Your task to perform on an android device: toggle data saver in the chrome app Image 0: 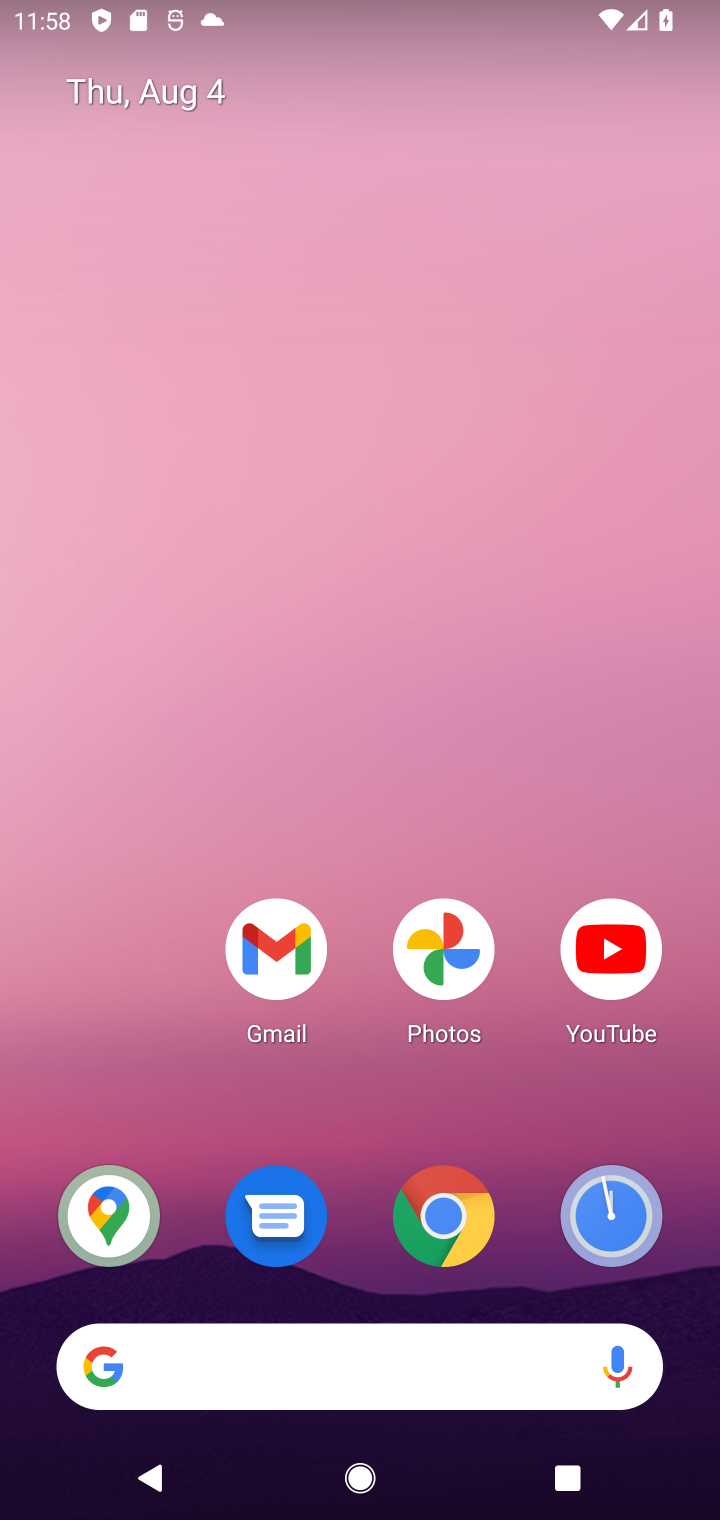
Step 0: drag from (305, 1346) to (427, 236)
Your task to perform on an android device: toggle data saver in the chrome app Image 1: 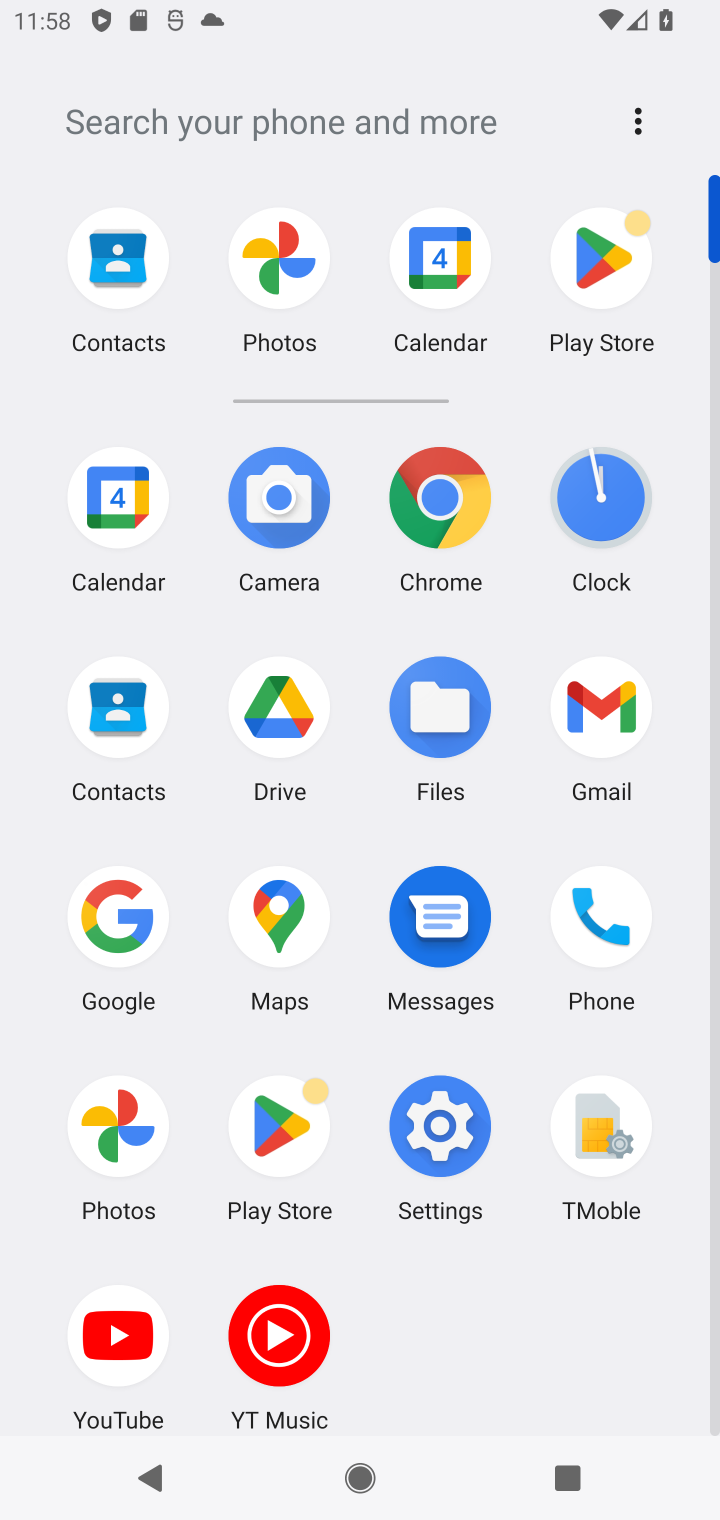
Step 1: click (435, 500)
Your task to perform on an android device: toggle data saver in the chrome app Image 2: 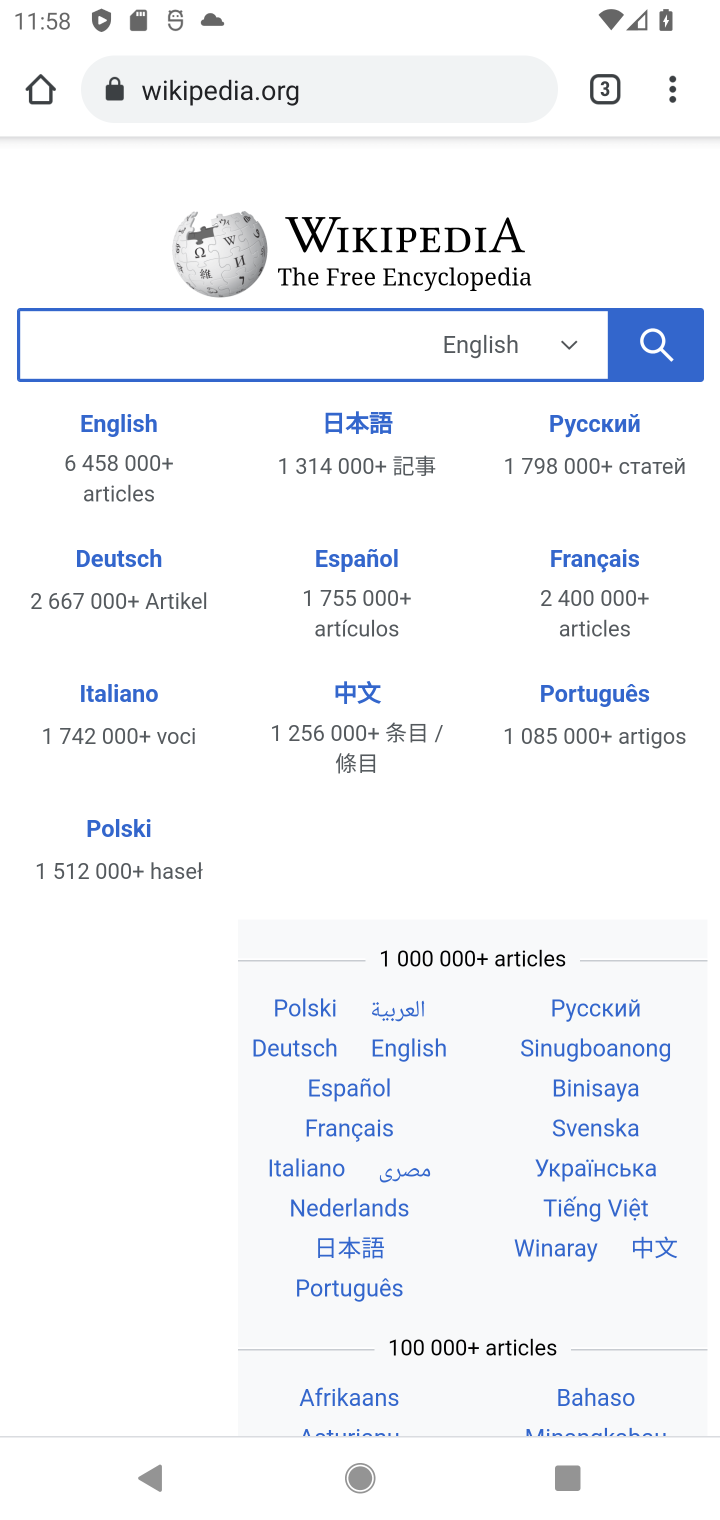
Step 2: click (680, 94)
Your task to perform on an android device: toggle data saver in the chrome app Image 3: 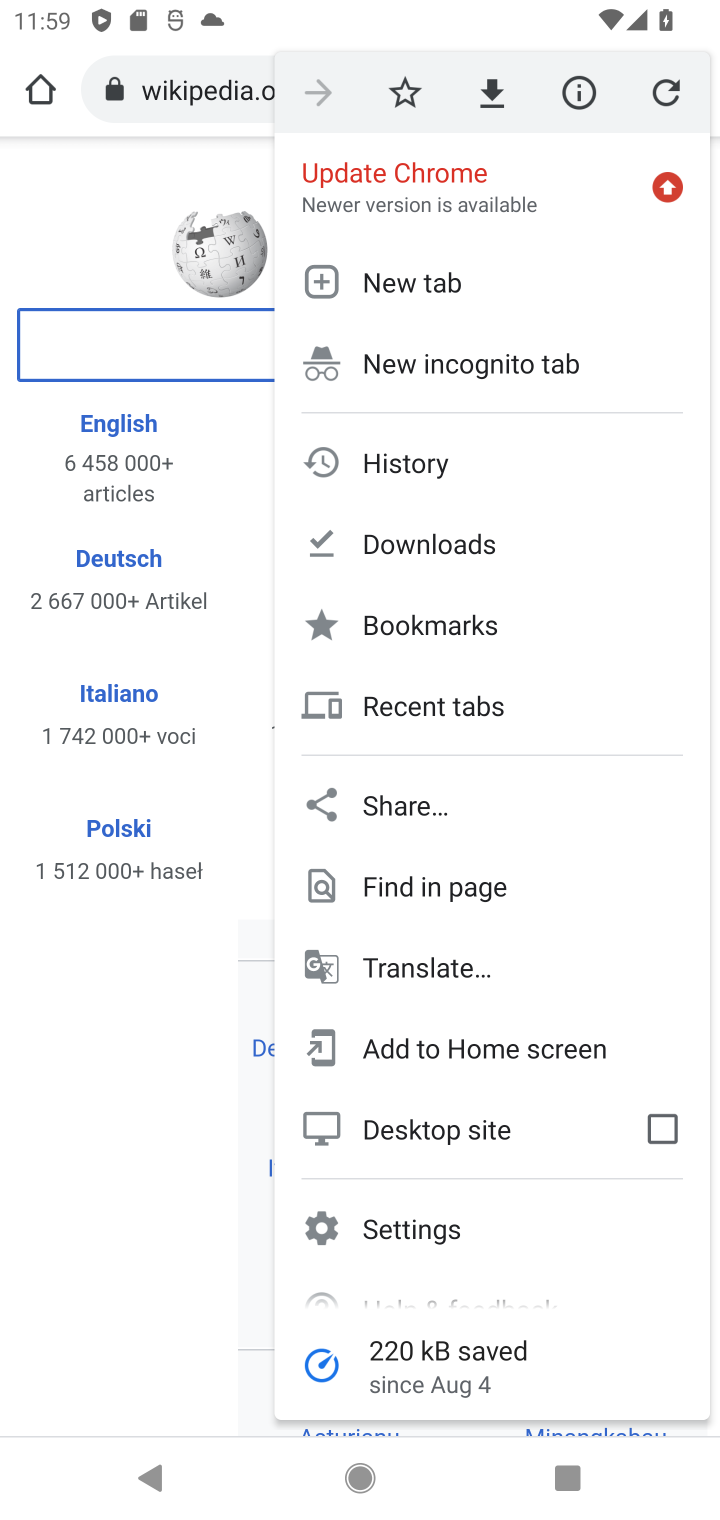
Step 3: drag from (458, 1235) to (473, 984)
Your task to perform on an android device: toggle data saver in the chrome app Image 4: 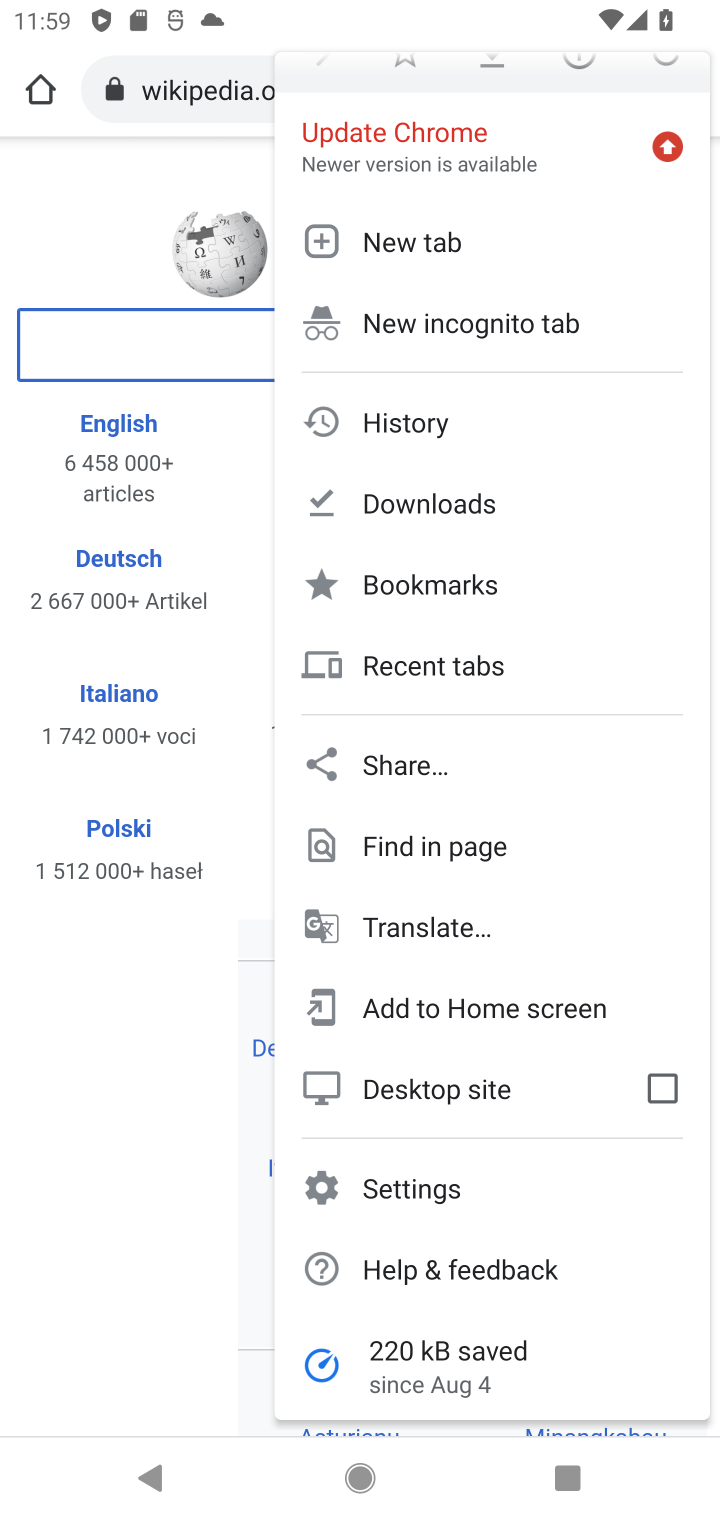
Step 4: click (417, 1184)
Your task to perform on an android device: toggle data saver in the chrome app Image 5: 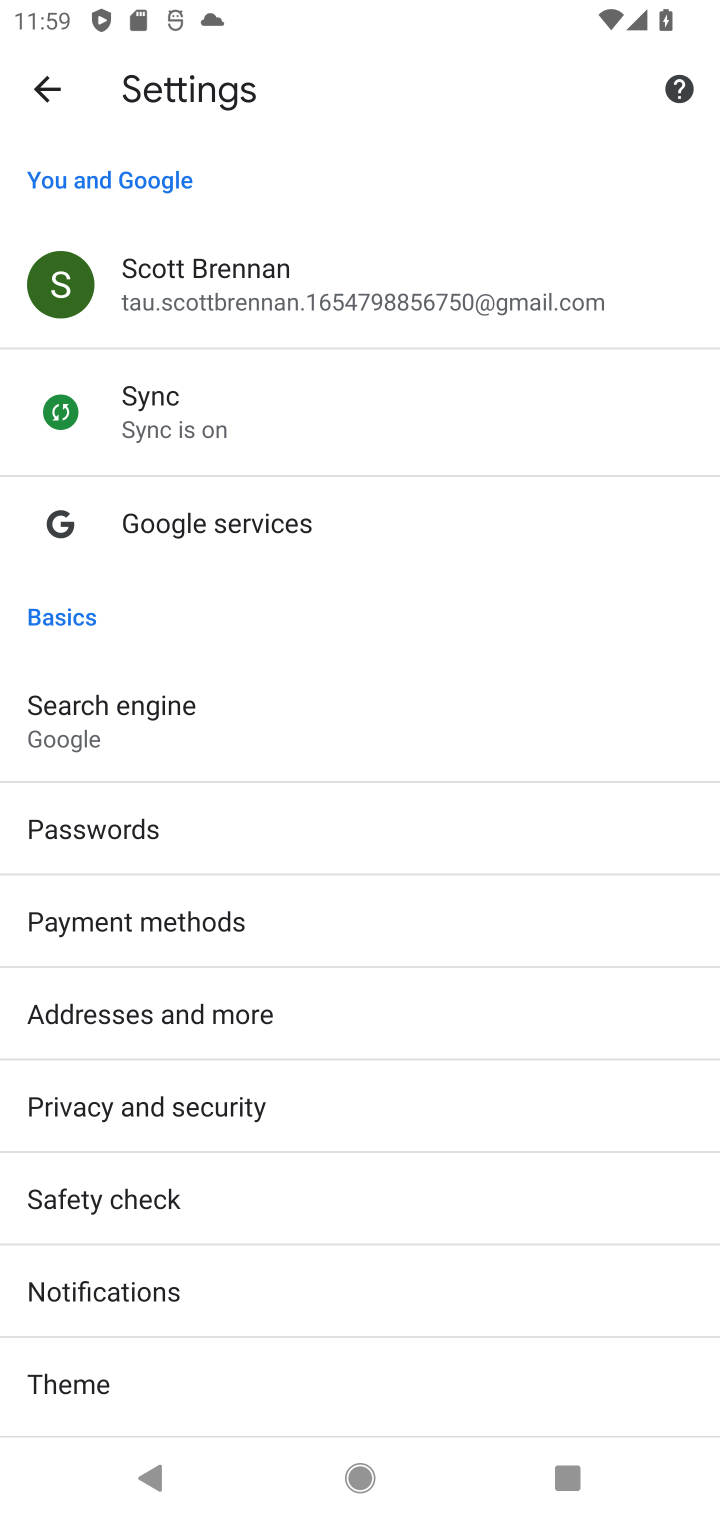
Step 5: drag from (187, 1277) to (266, 875)
Your task to perform on an android device: toggle data saver in the chrome app Image 6: 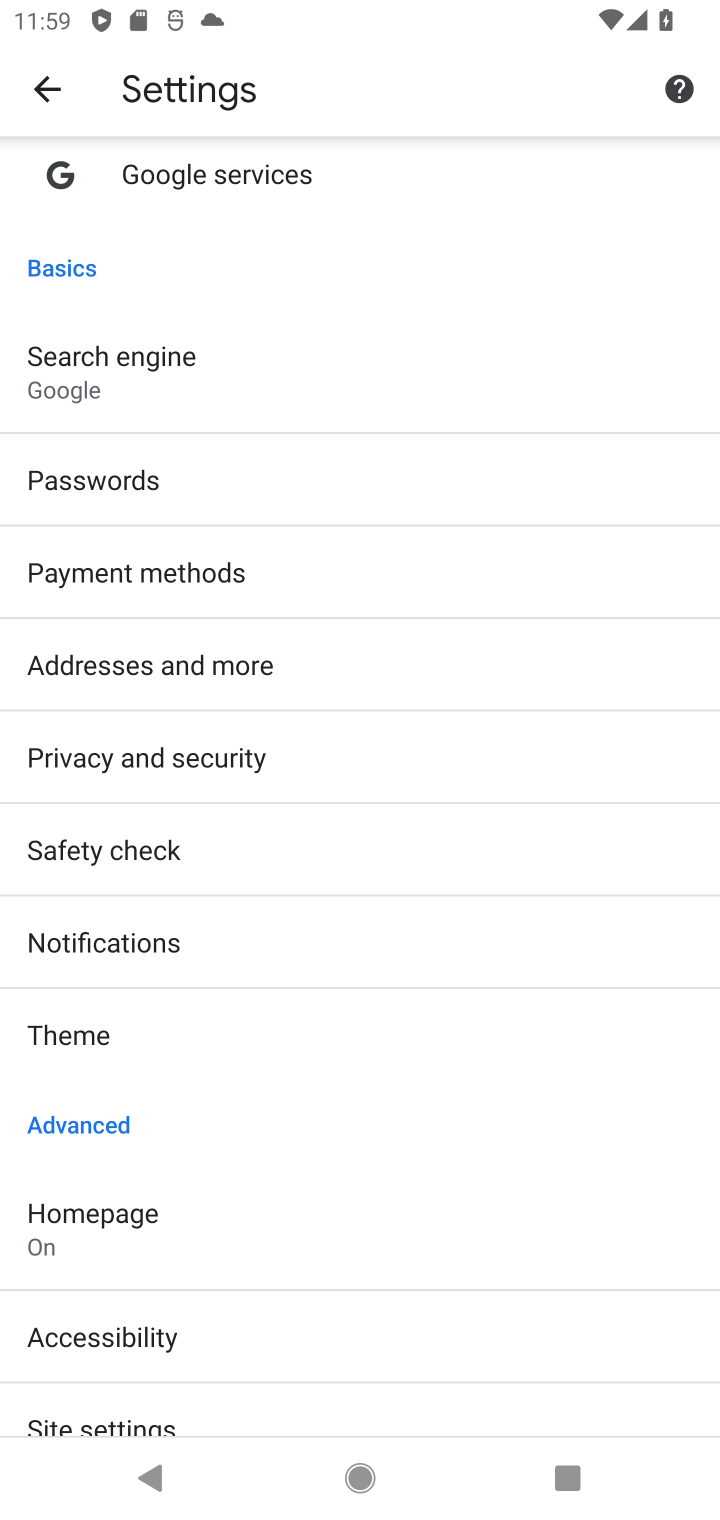
Step 6: drag from (179, 1209) to (287, 903)
Your task to perform on an android device: toggle data saver in the chrome app Image 7: 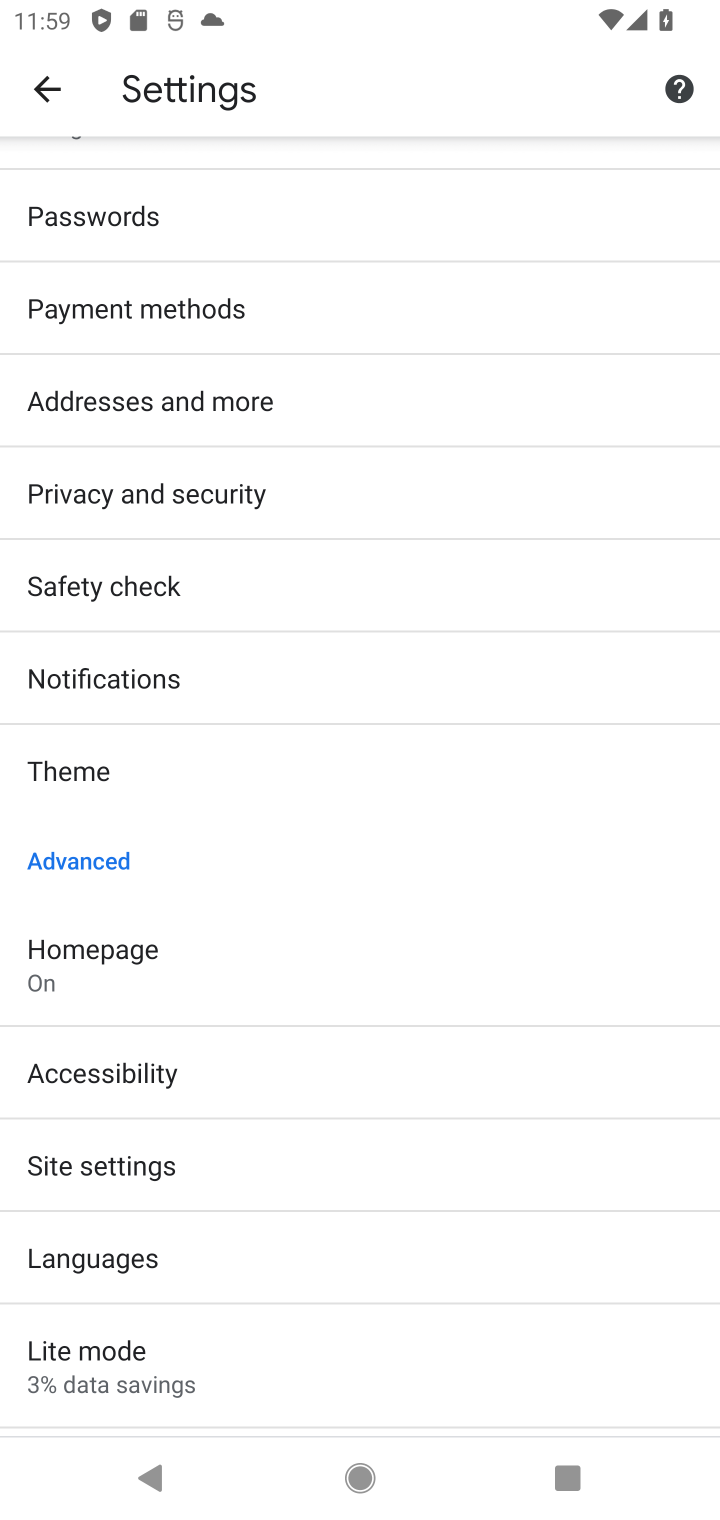
Step 7: drag from (201, 1271) to (287, 928)
Your task to perform on an android device: toggle data saver in the chrome app Image 8: 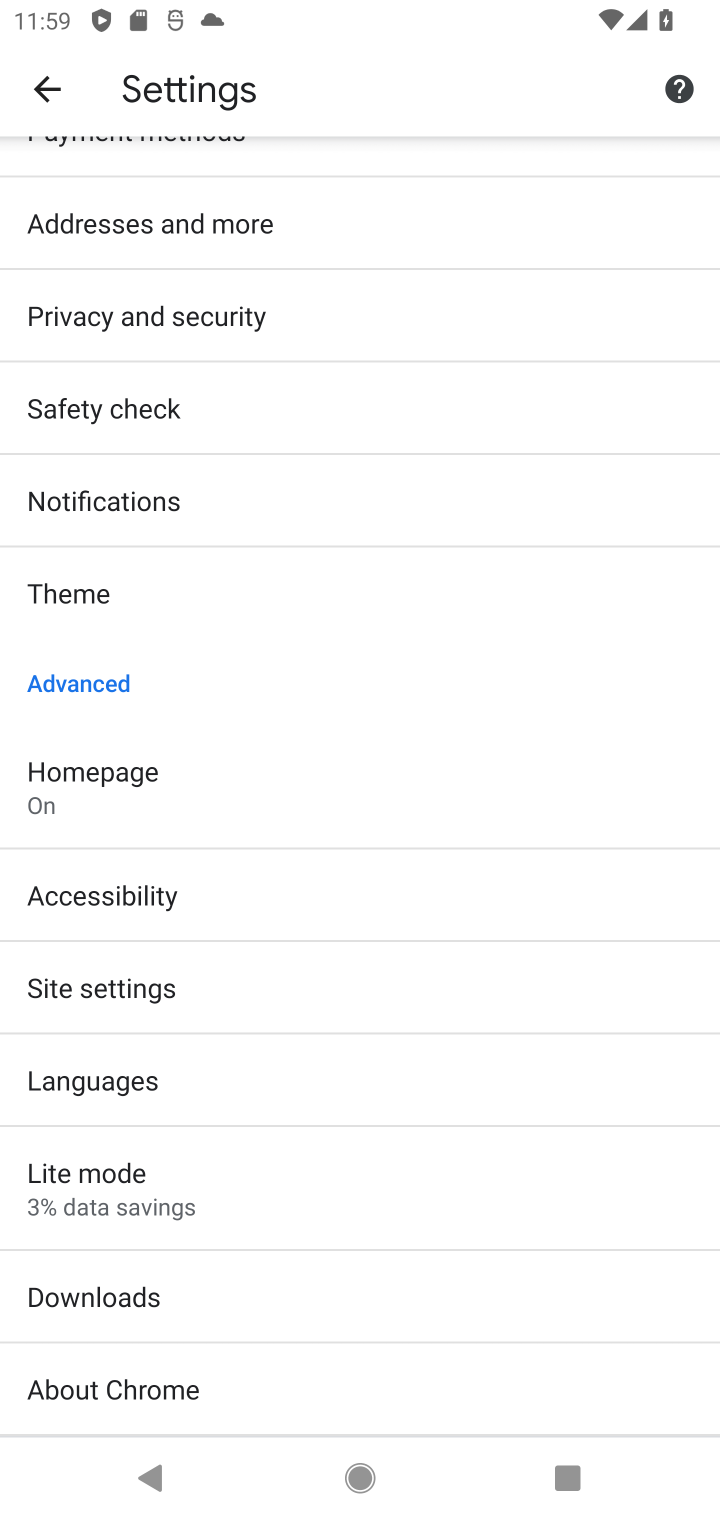
Step 8: click (169, 1192)
Your task to perform on an android device: toggle data saver in the chrome app Image 9: 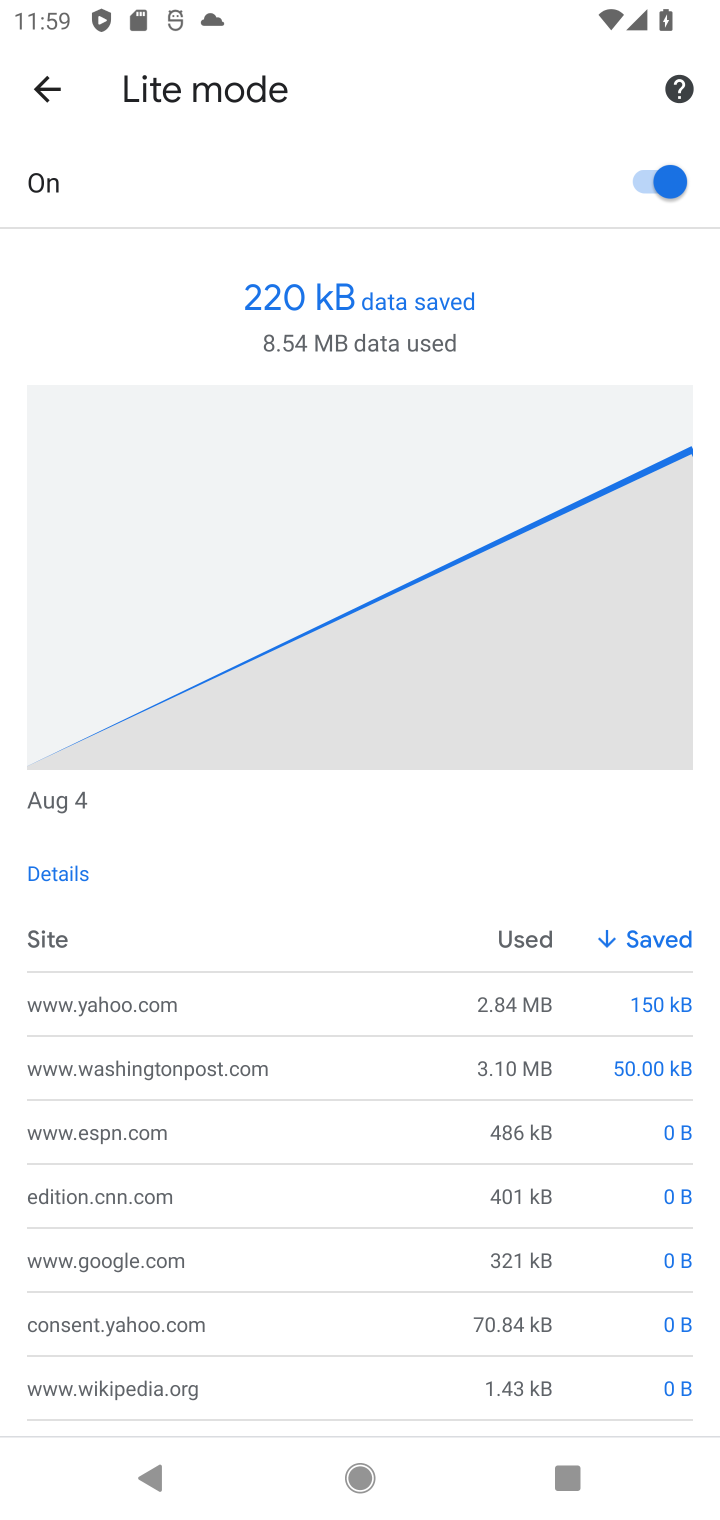
Step 9: click (637, 179)
Your task to perform on an android device: toggle data saver in the chrome app Image 10: 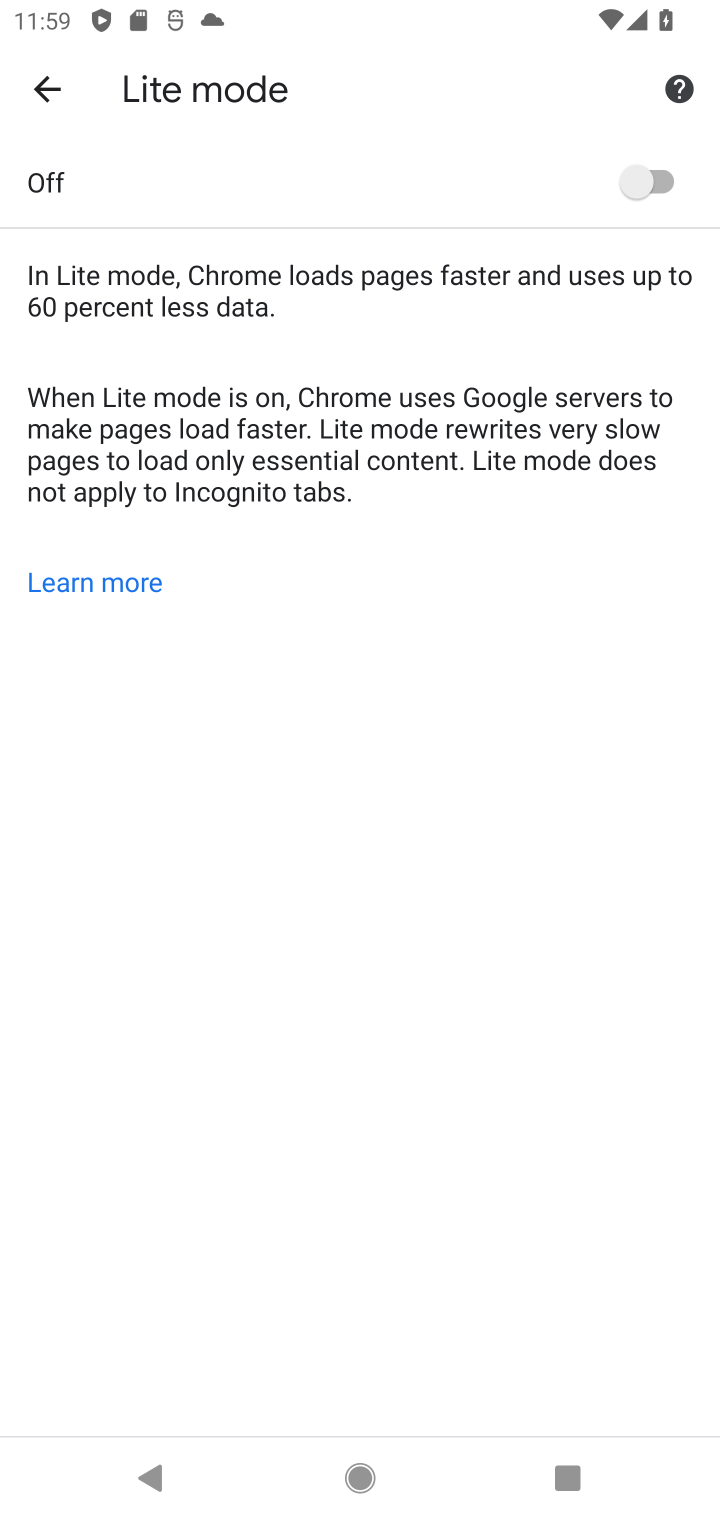
Step 10: task complete